Your task to perform on an android device: set default search engine in the chrome app Image 0: 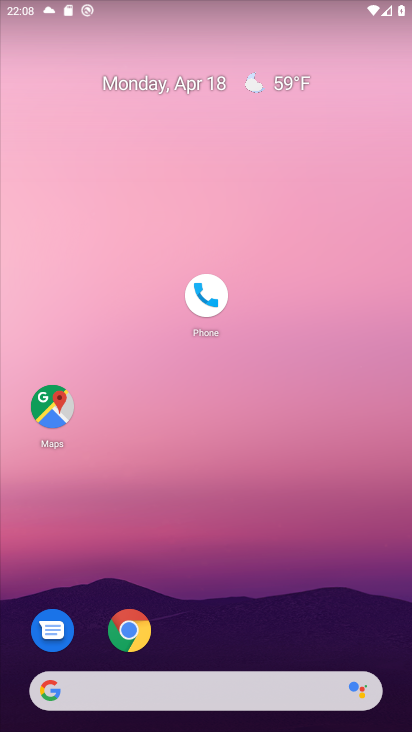
Step 0: click (126, 619)
Your task to perform on an android device: set default search engine in the chrome app Image 1: 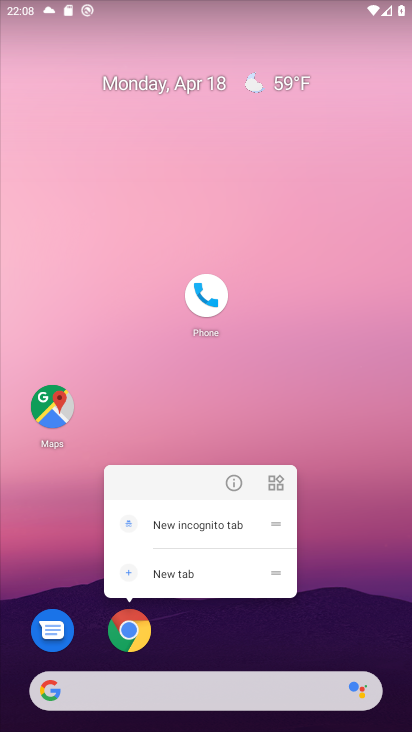
Step 1: drag from (339, 492) to (349, 118)
Your task to perform on an android device: set default search engine in the chrome app Image 2: 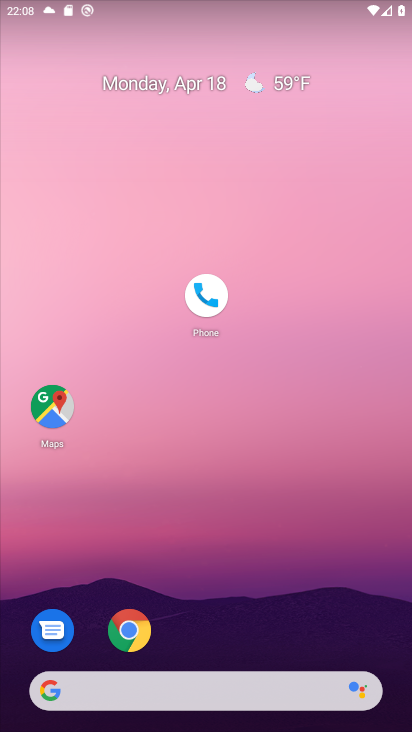
Step 2: drag from (246, 600) to (291, 179)
Your task to perform on an android device: set default search engine in the chrome app Image 3: 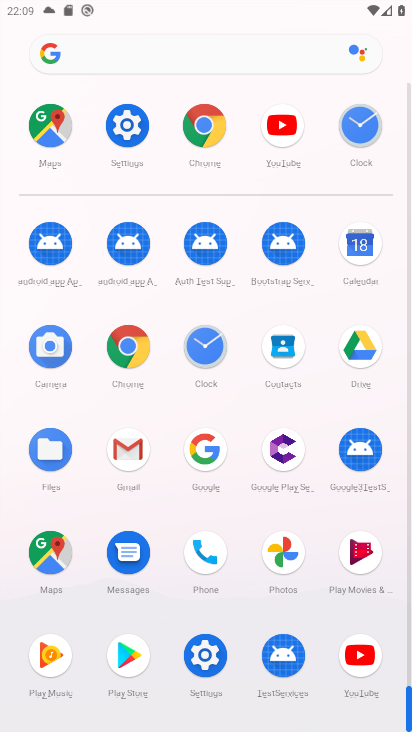
Step 3: click (136, 338)
Your task to perform on an android device: set default search engine in the chrome app Image 4: 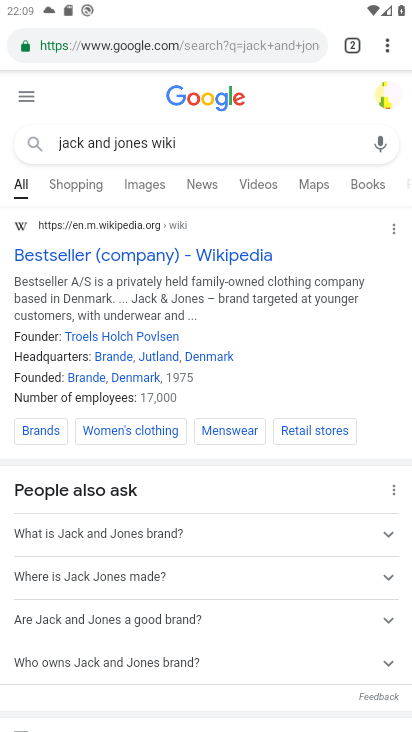
Step 4: drag from (391, 44) to (229, 561)
Your task to perform on an android device: set default search engine in the chrome app Image 5: 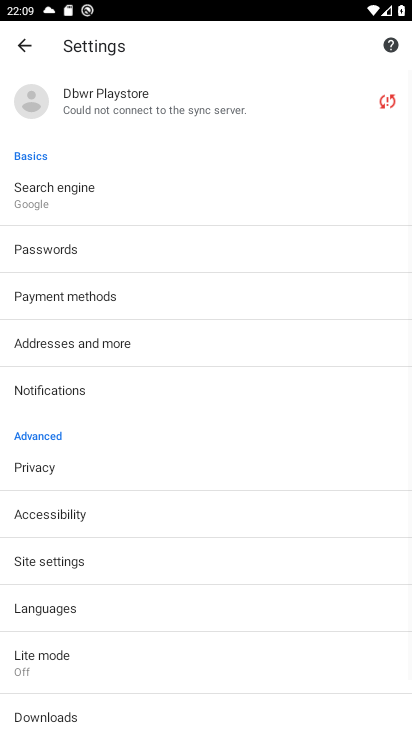
Step 5: click (123, 204)
Your task to perform on an android device: set default search engine in the chrome app Image 6: 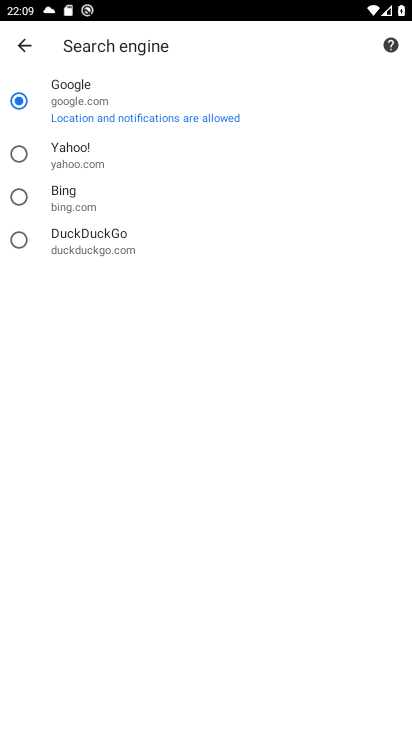
Step 6: task complete